Your task to perform on an android device: When is my next meeting? Image 0: 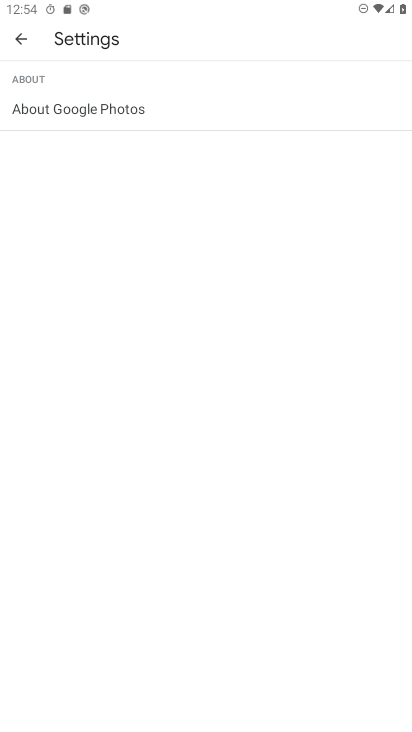
Step 0: press home button
Your task to perform on an android device: When is my next meeting? Image 1: 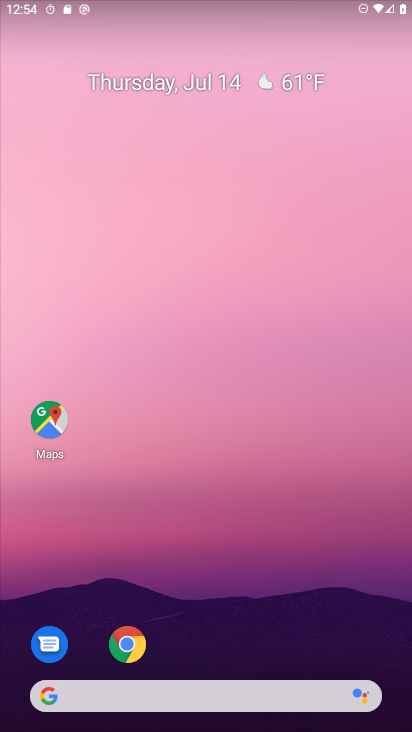
Step 1: drag from (324, 602) to (269, 128)
Your task to perform on an android device: When is my next meeting? Image 2: 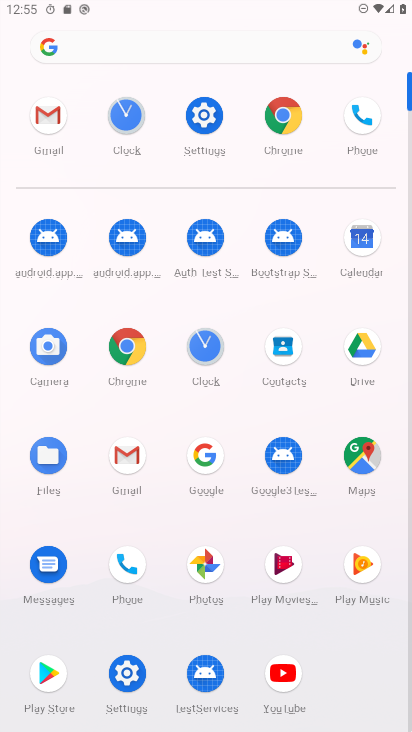
Step 2: click (364, 234)
Your task to perform on an android device: When is my next meeting? Image 3: 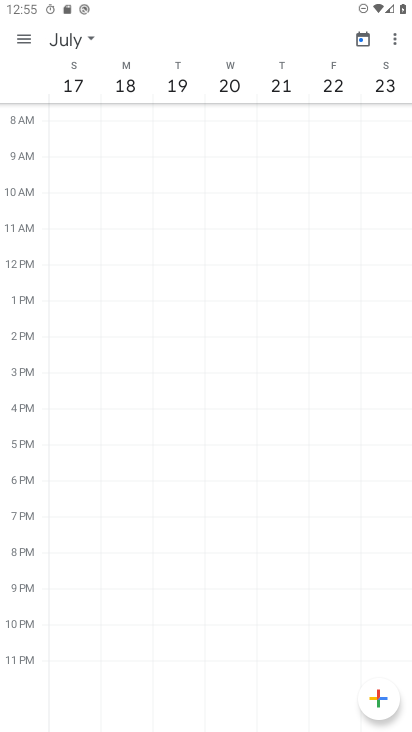
Step 3: task complete